Your task to perform on an android device: turn notification dots off Image 0: 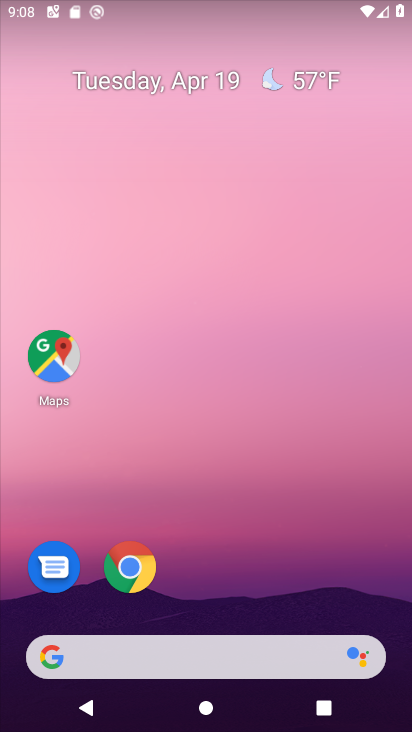
Step 0: drag from (249, 715) to (322, 0)
Your task to perform on an android device: turn notification dots off Image 1: 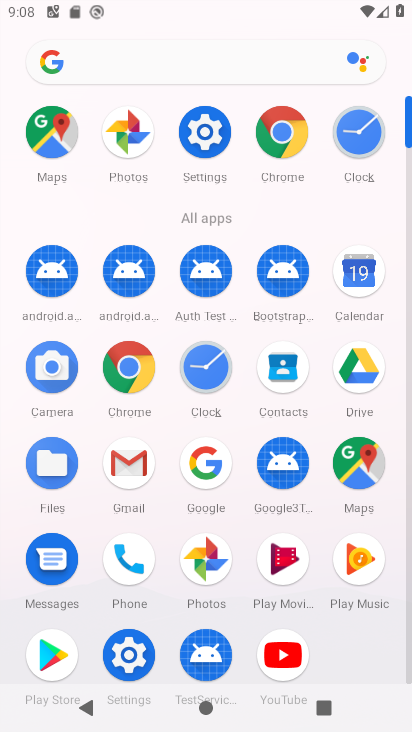
Step 1: click (196, 135)
Your task to perform on an android device: turn notification dots off Image 2: 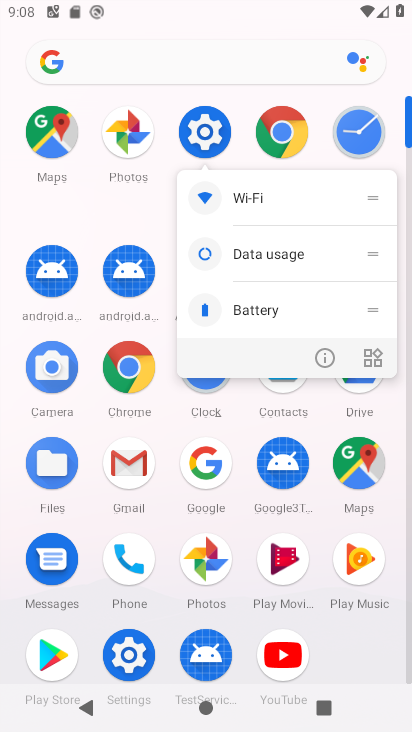
Step 2: click (208, 146)
Your task to perform on an android device: turn notification dots off Image 3: 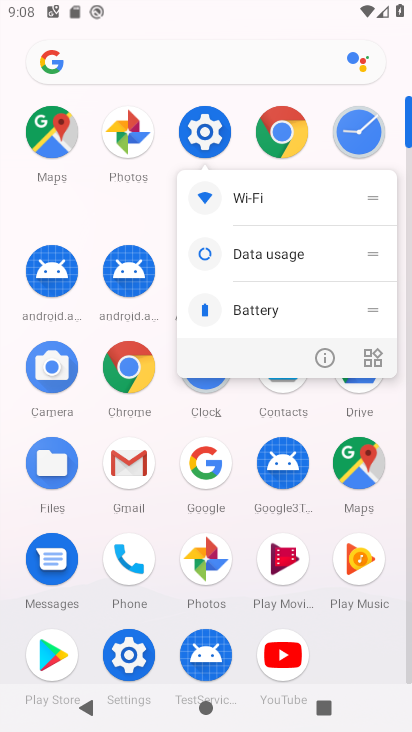
Step 3: click (208, 145)
Your task to perform on an android device: turn notification dots off Image 4: 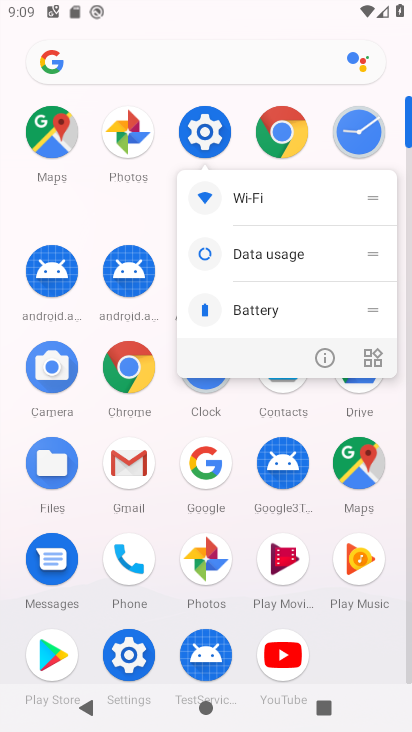
Step 4: click (208, 140)
Your task to perform on an android device: turn notification dots off Image 5: 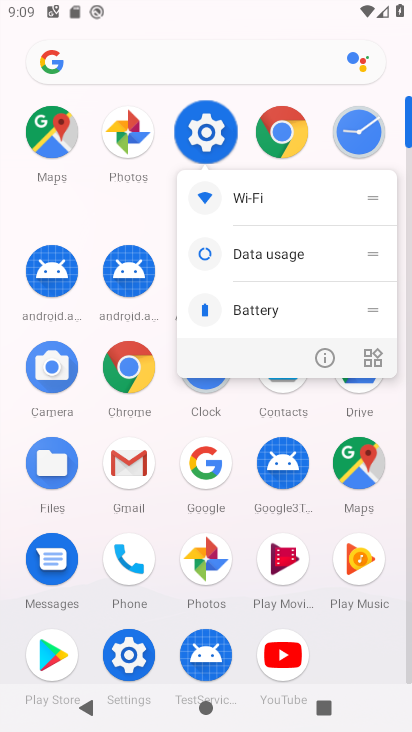
Step 5: click (208, 140)
Your task to perform on an android device: turn notification dots off Image 6: 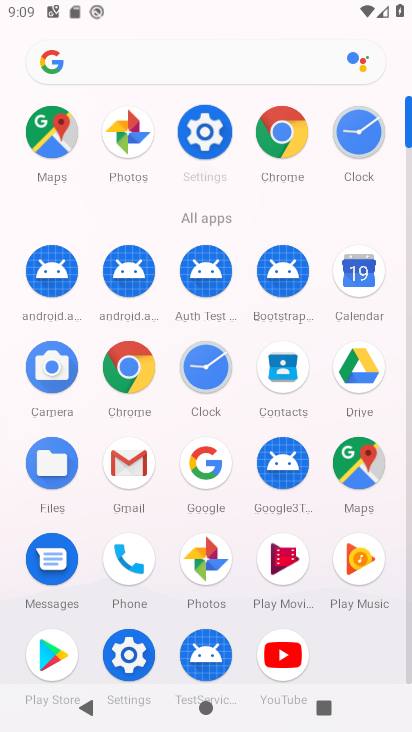
Step 6: click (223, 141)
Your task to perform on an android device: turn notification dots off Image 7: 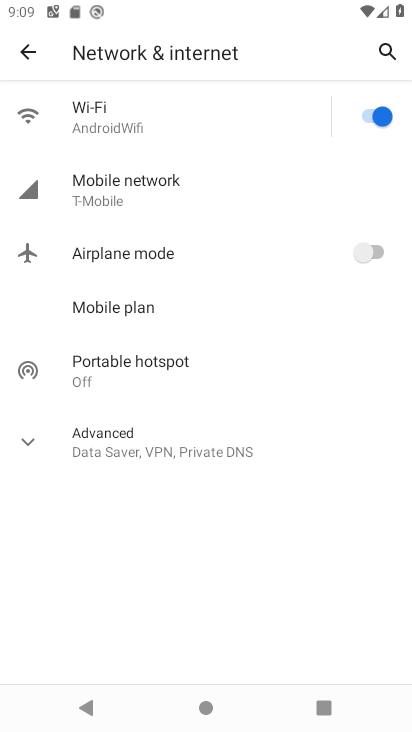
Step 7: click (27, 47)
Your task to perform on an android device: turn notification dots off Image 8: 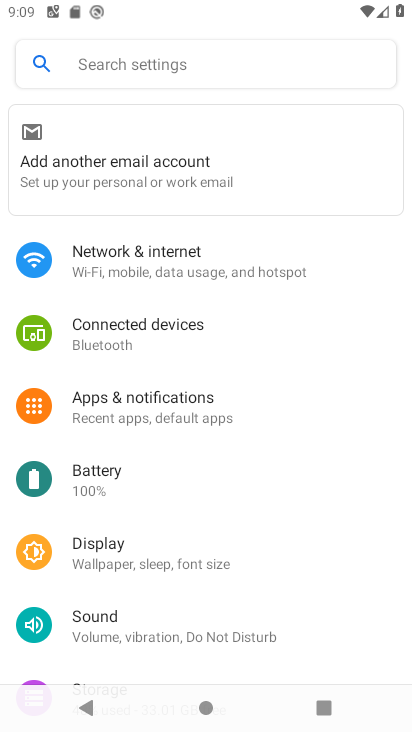
Step 8: click (211, 407)
Your task to perform on an android device: turn notification dots off Image 9: 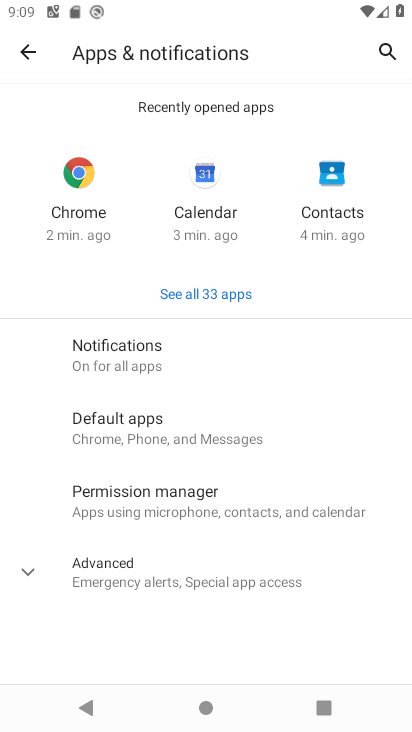
Step 9: click (290, 357)
Your task to perform on an android device: turn notification dots off Image 10: 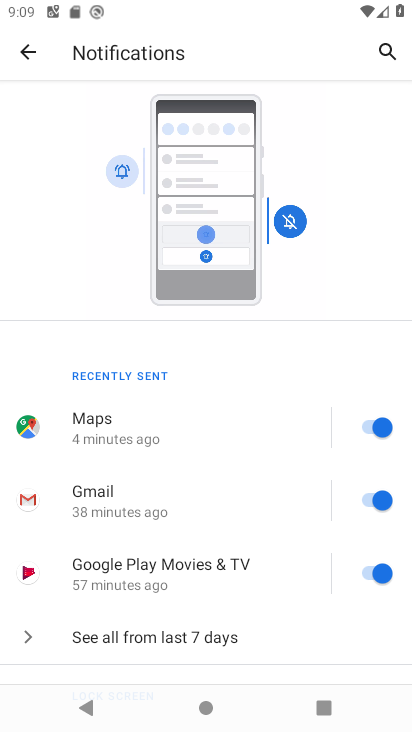
Step 10: drag from (345, 649) to (213, 11)
Your task to perform on an android device: turn notification dots off Image 11: 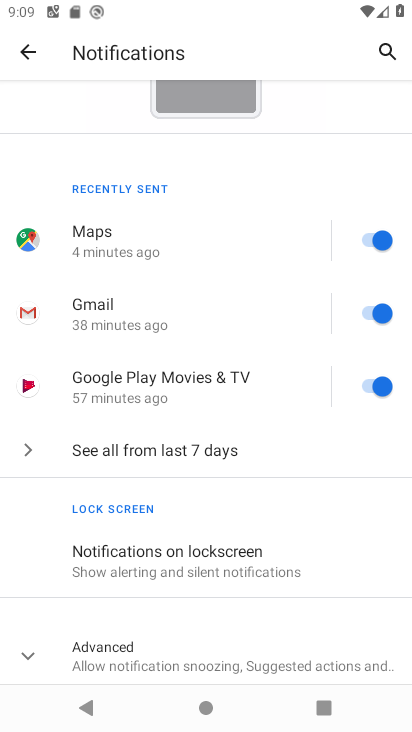
Step 11: click (253, 663)
Your task to perform on an android device: turn notification dots off Image 12: 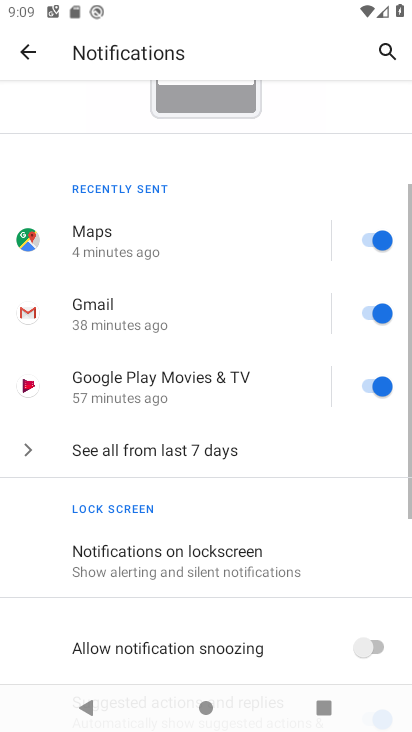
Step 12: drag from (262, 654) to (260, 19)
Your task to perform on an android device: turn notification dots off Image 13: 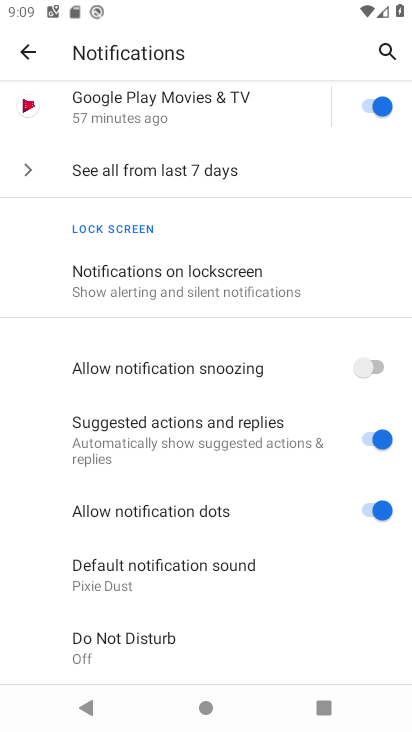
Step 13: click (374, 502)
Your task to perform on an android device: turn notification dots off Image 14: 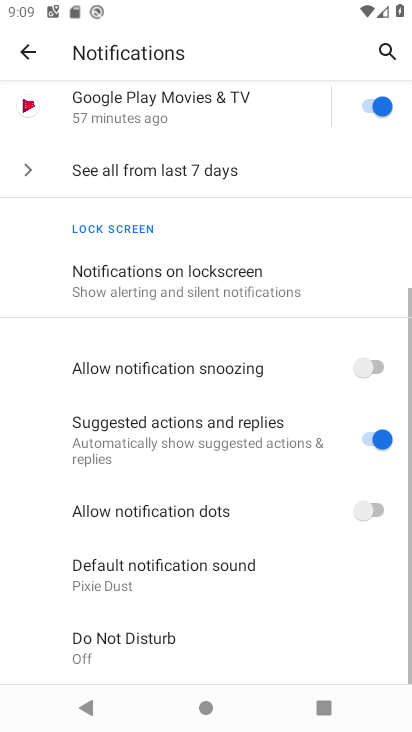
Step 14: task complete